Your task to perform on an android device: clear all cookies in the chrome app Image 0: 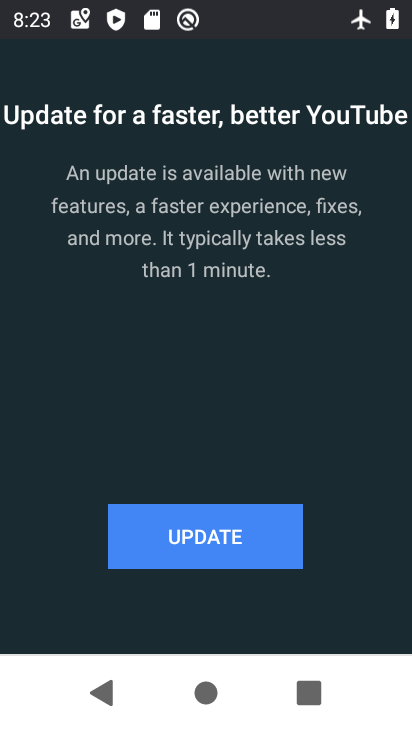
Step 0: press home button
Your task to perform on an android device: clear all cookies in the chrome app Image 1: 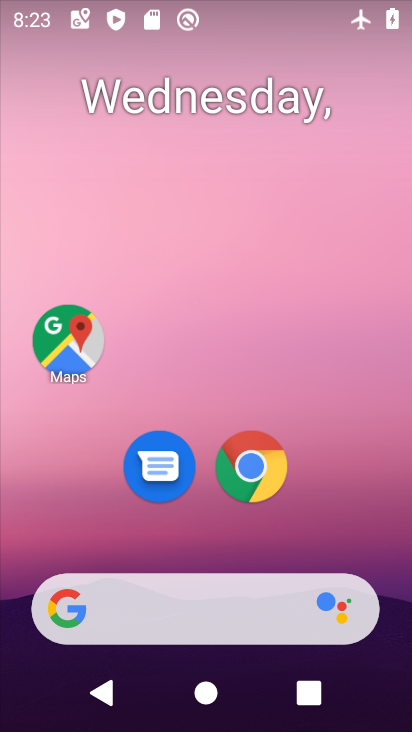
Step 1: click (256, 465)
Your task to perform on an android device: clear all cookies in the chrome app Image 2: 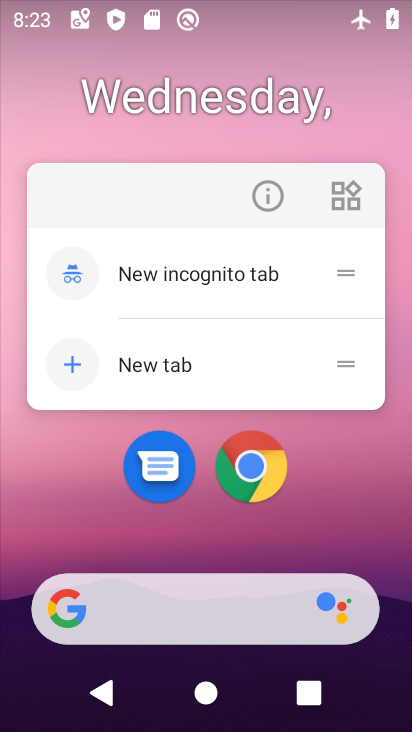
Step 2: click (257, 466)
Your task to perform on an android device: clear all cookies in the chrome app Image 3: 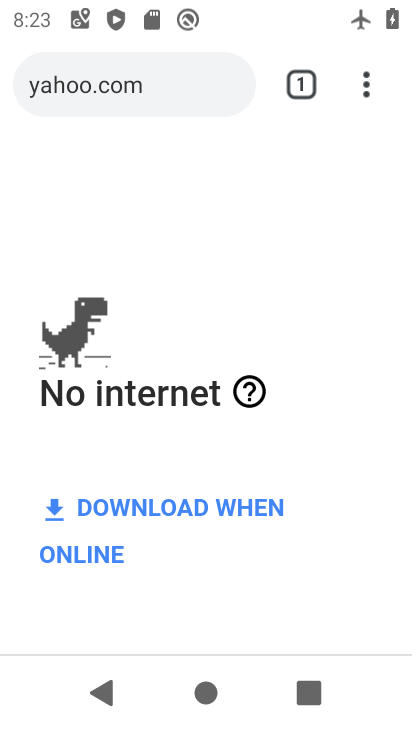
Step 3: click (364, 67)
Your task to perform on an android device: clear all cookies in the chrome app Image 4: 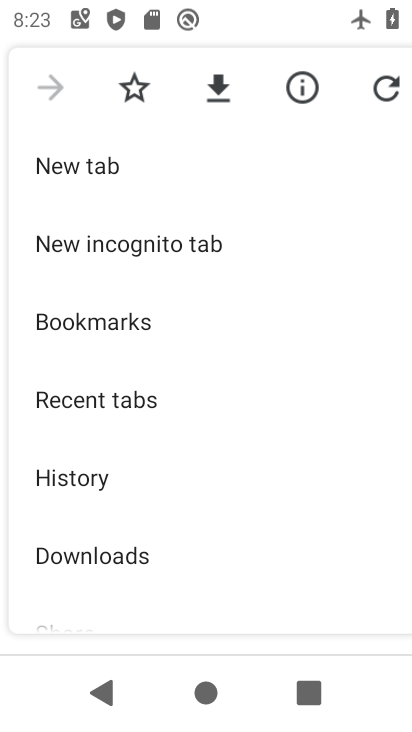
Step 4: click (72, 464)
Your task to perform on an android device: clear all cookies in the chrome app Image 5: 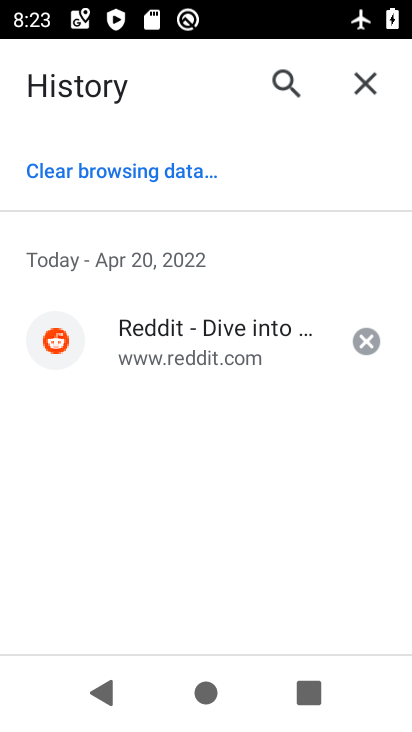
Step 5: click (132, 179)
Your task to perform on an android device: clear all cookies in the chrome app Image 6: 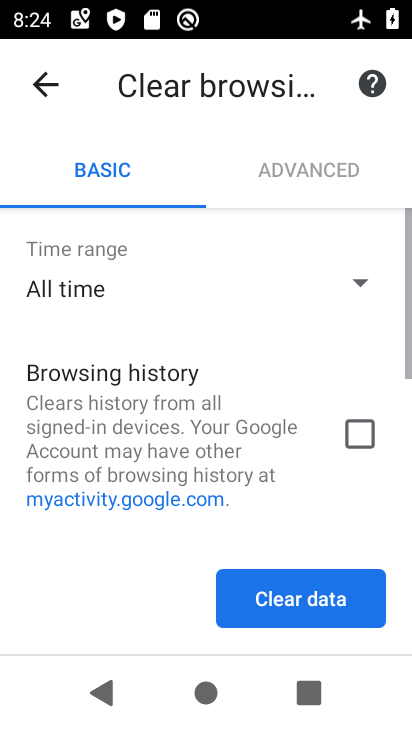
Step 6: drag from (183, 433) to (195, 292)
Your task to perform on an android device: clear all cookies in the chrome app Image 7: 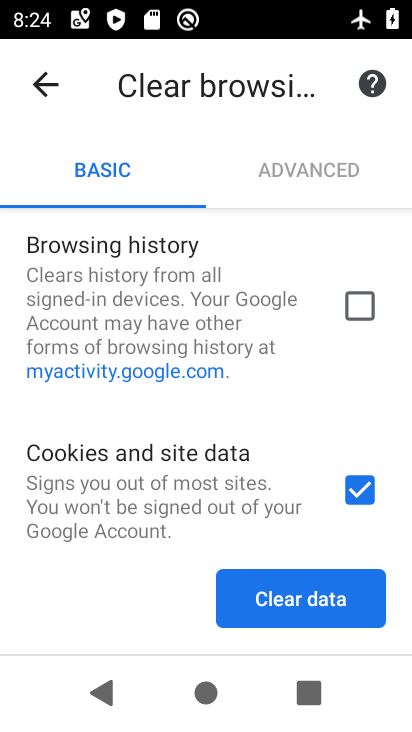
Step 7: drag from (217, 452) to (261, 227)
Your task to perform on an android device: clear all cookies in the chrome app Image 8: 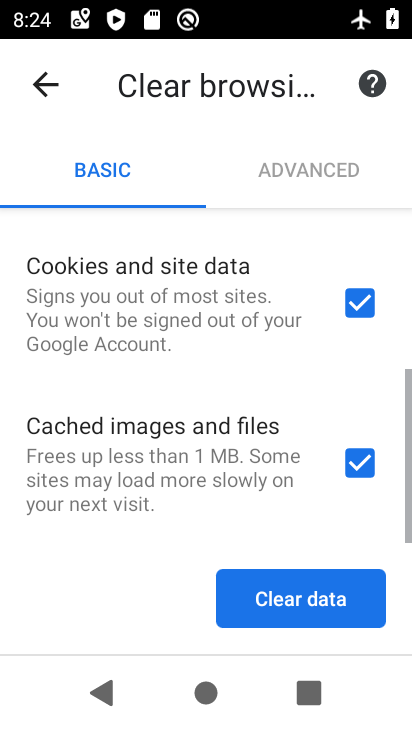
Step 8: click (294, 458)
Your task to perform on an android device: clear all cookies in the chrome app Image 9: 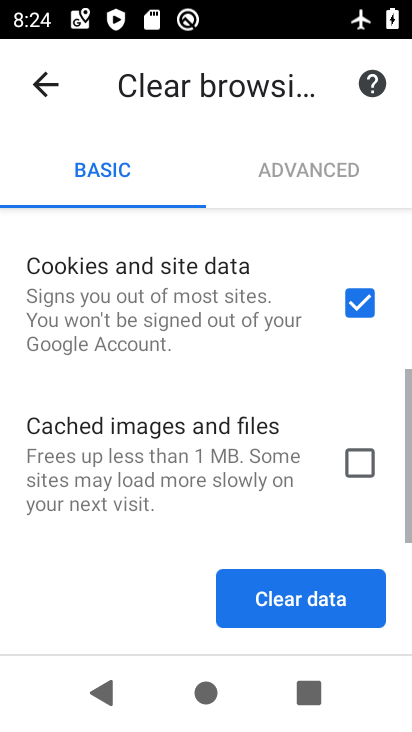
Step 9: click (298, 587)
Your task to perform on an android device: clear all cookies in the chrome app Image 10: 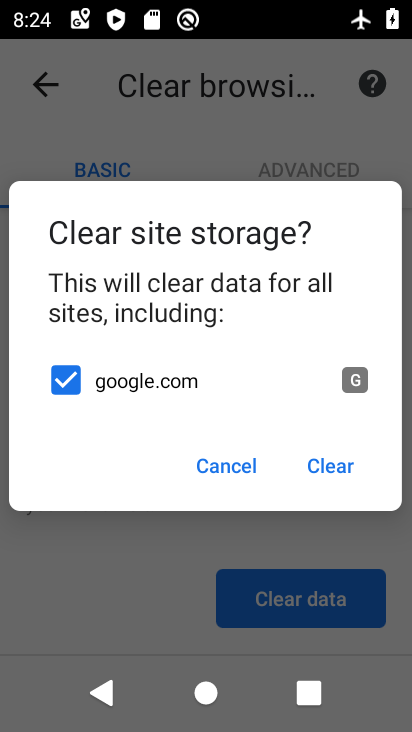
Step 10: click (341, 455)
Your task to perform on an android device: clear all cookies in the chrome app Image 11: 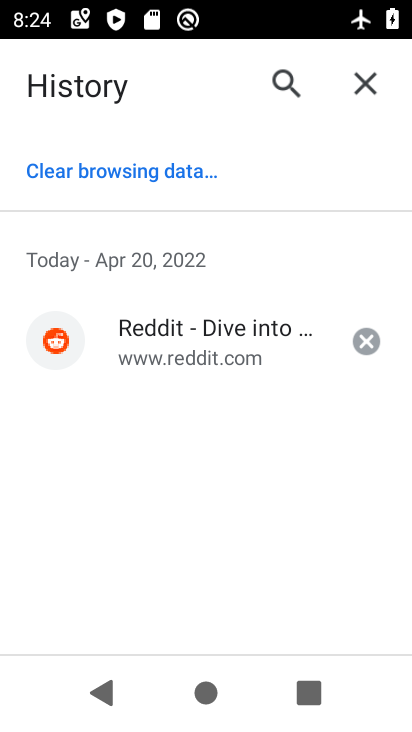
Step 11: task complete